Your task to perform on an android device: turn on priority inbox in the gmail app Image 0: 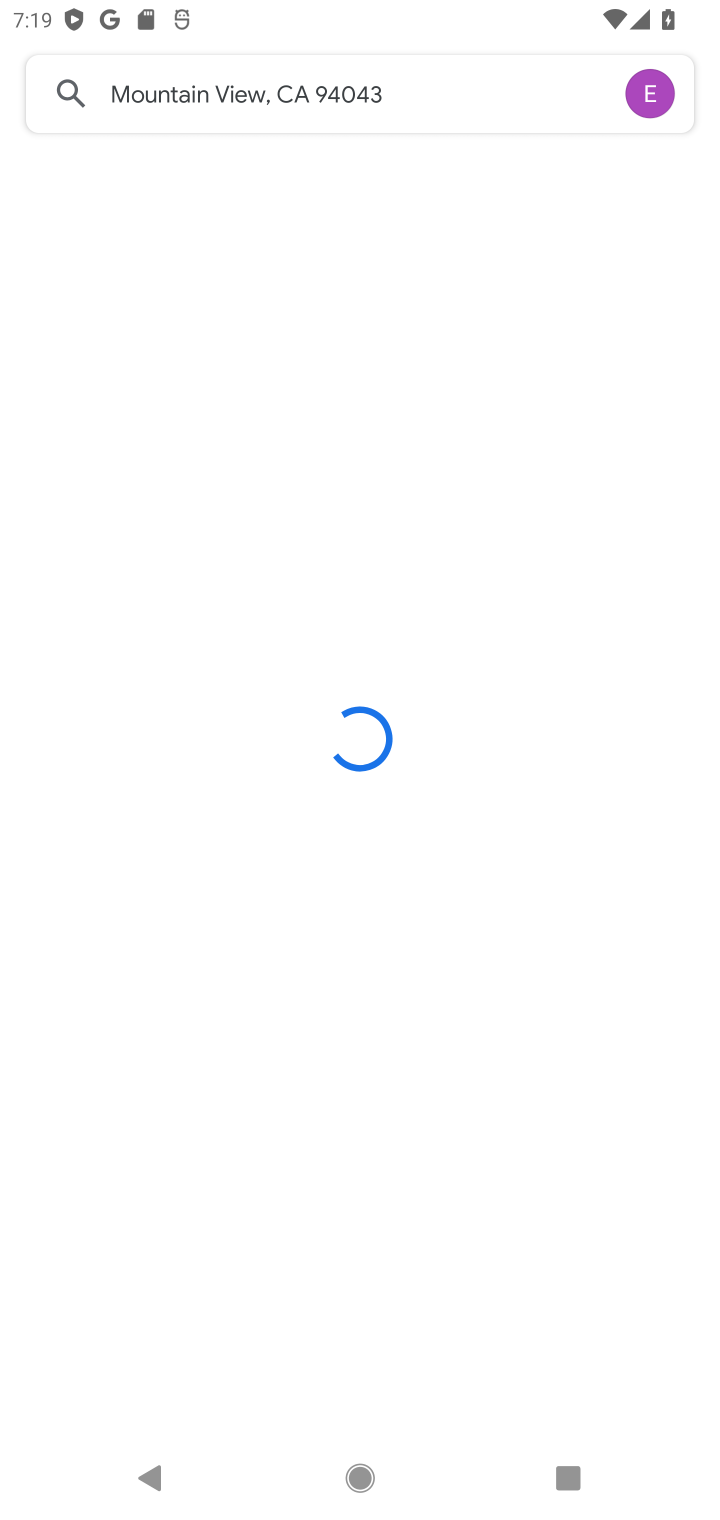
Step 0: press home button
Your task to perform on an android device: turn on priority inbox in the gmail app Image 1: 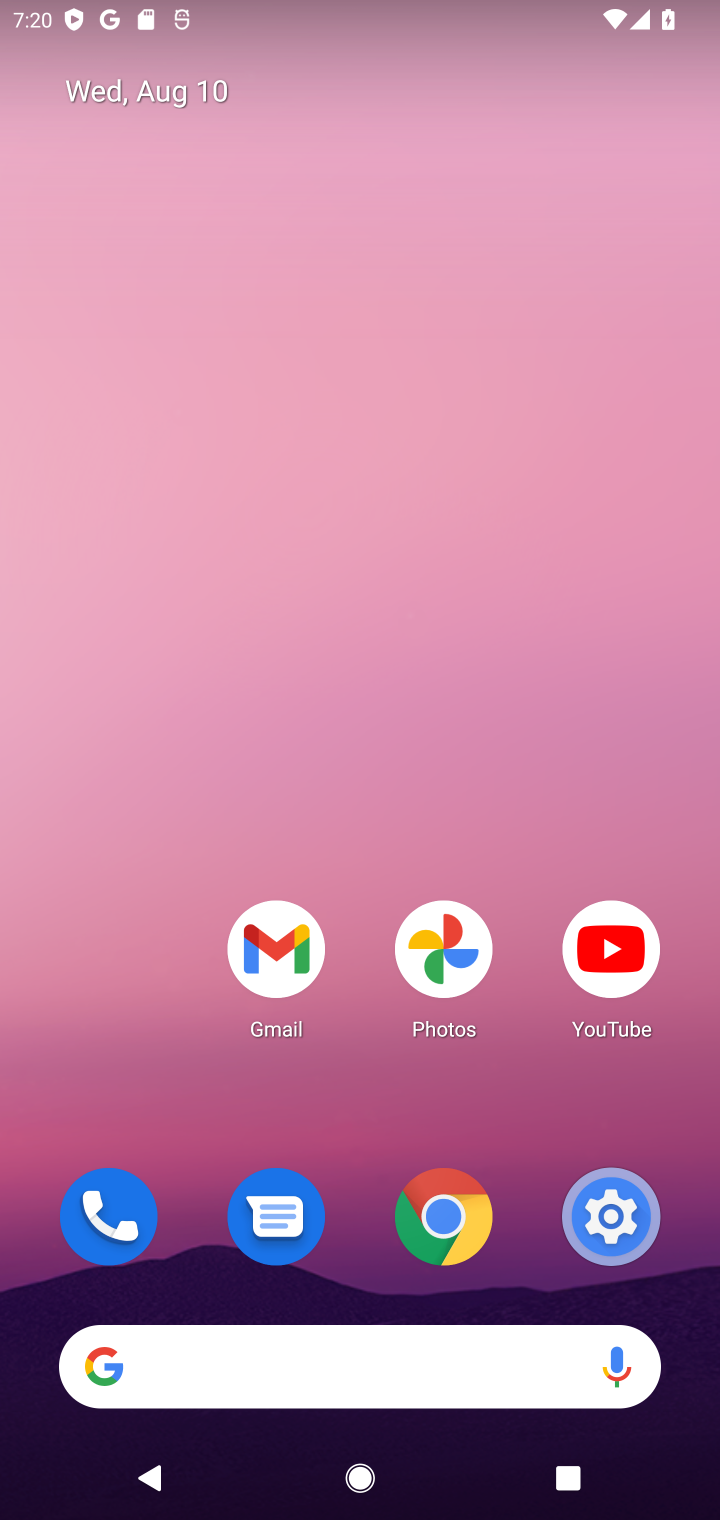
Step 1: drag from (339, 839) to (580, 218)
Your task to perform on an android device: turn on priority inbox in the gmail app Image 2: 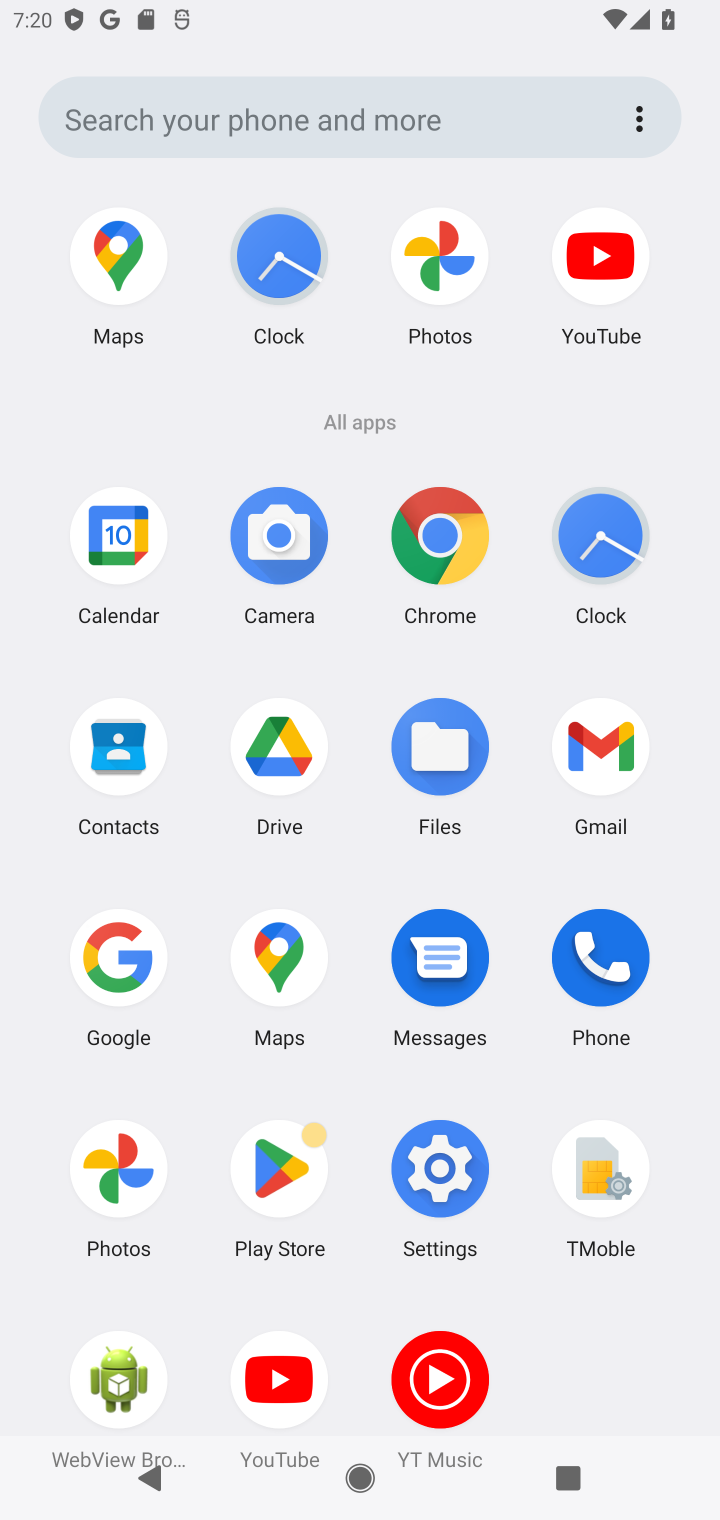
Step 2: click (630, 734)
Your task to perform on an android device: turn on priority inbox in the gmail app Image 3: 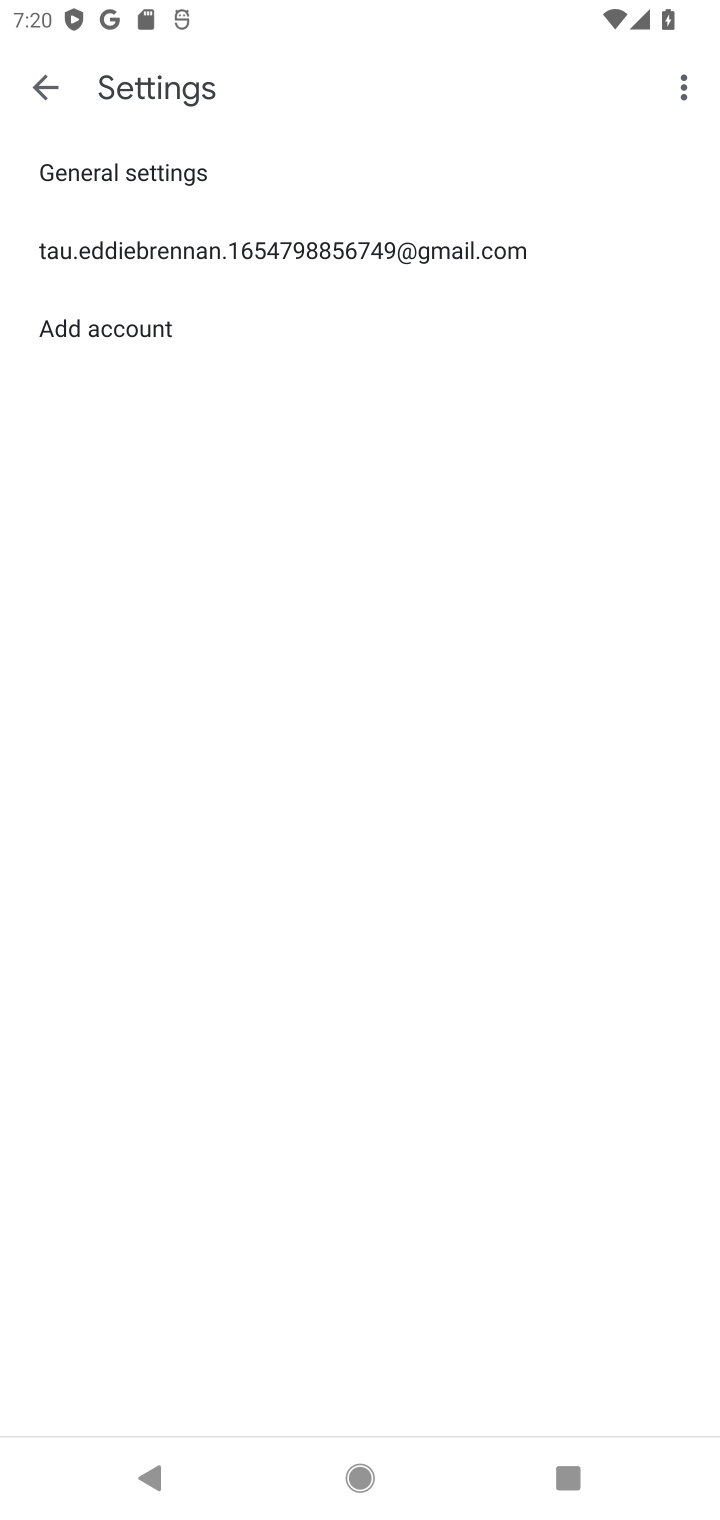
Step 3: click (177, 254)
Your task to perform on an android device: turn on priority inbox in the gmail app Image 4: 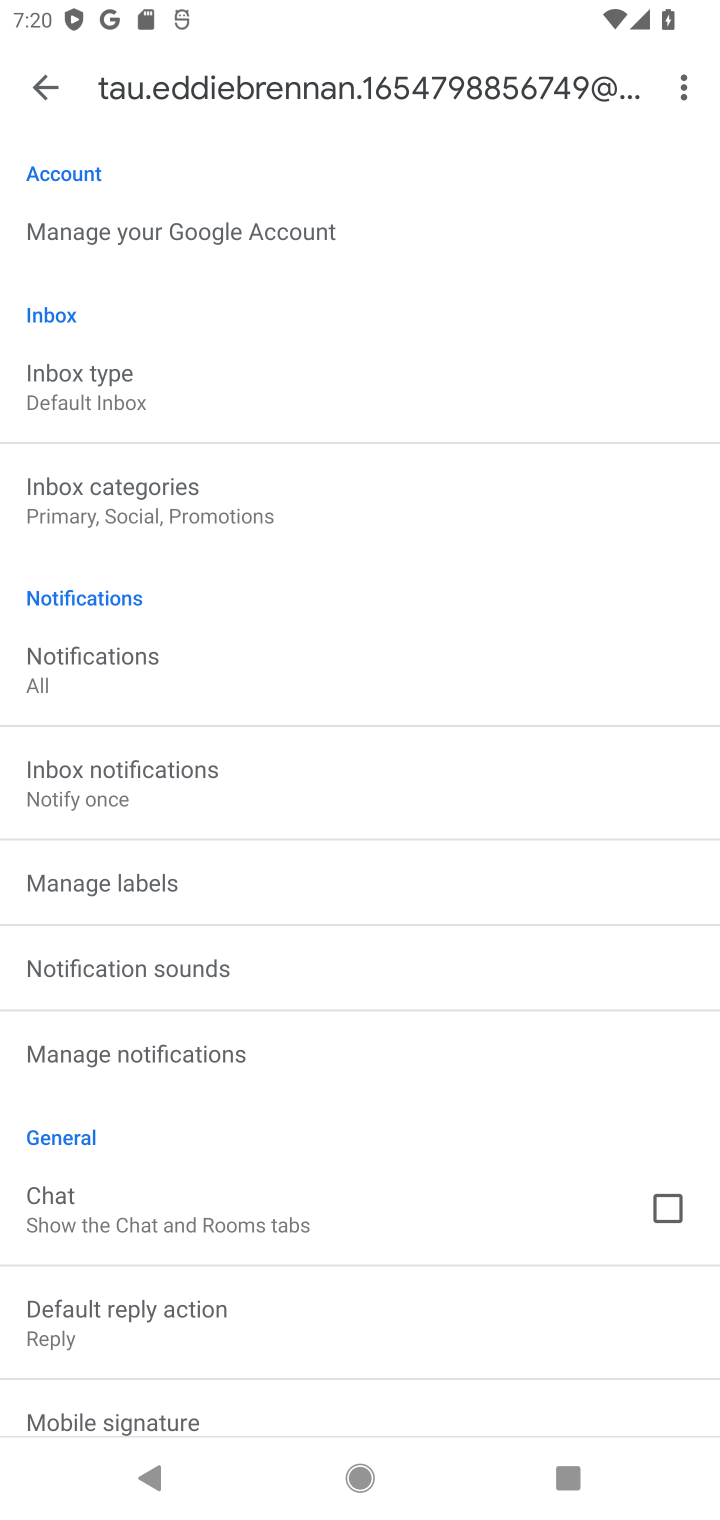
Step 4: click (174, 422)
Your task to perform on an android device: turn on priority inbox in the gmail app Image 5: 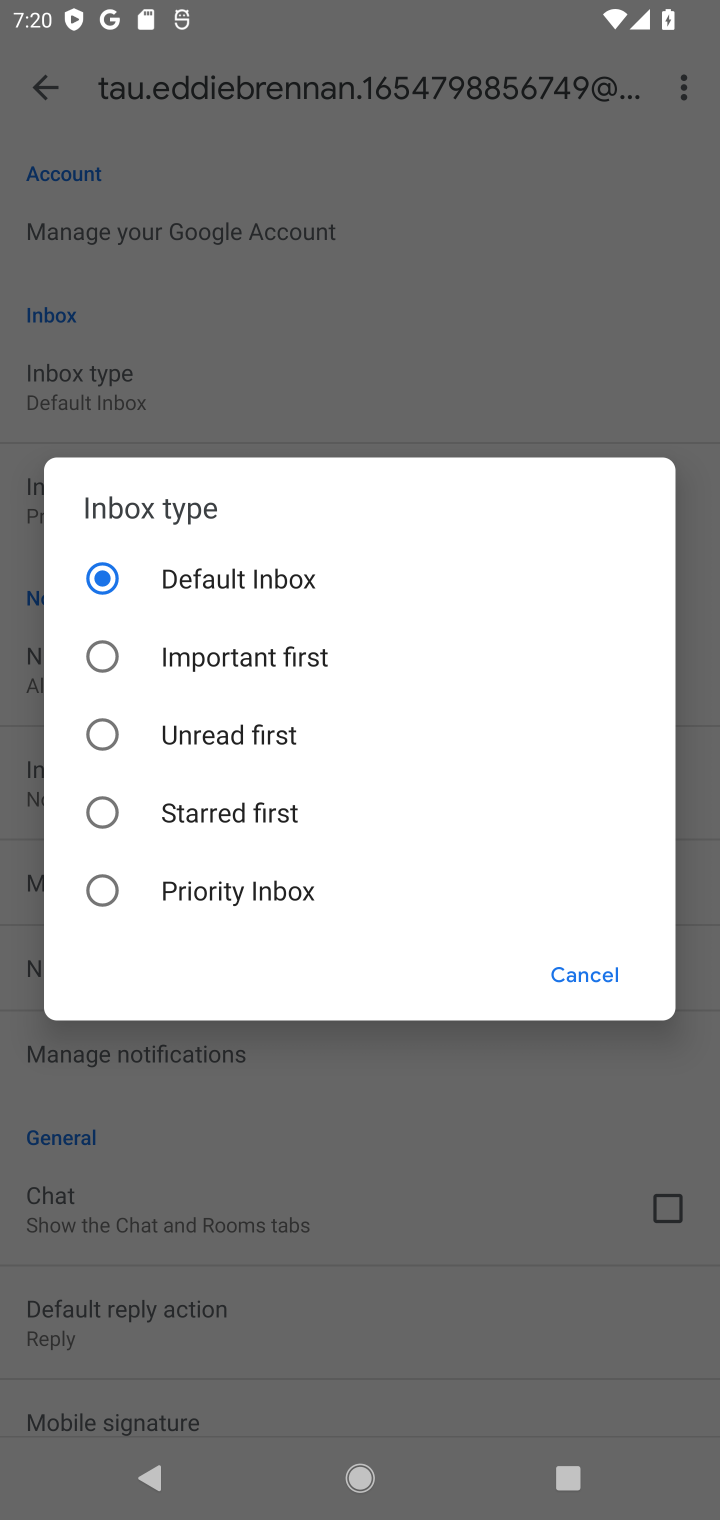
Step 5: click (246, 894)
Your task to perform on an android device: turn on priority inbox in the gmail app Image 6: 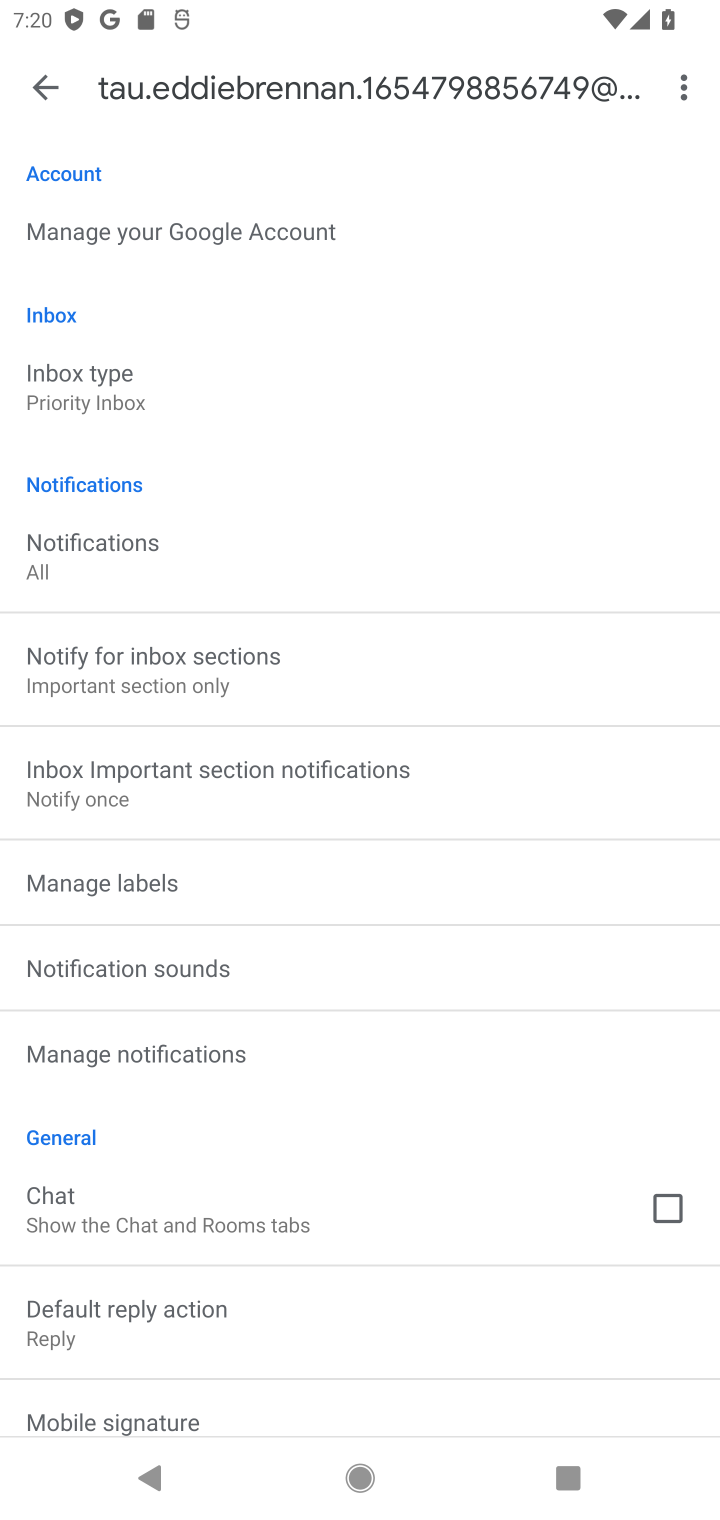
Step 6: task complete